Your task to perform on an android device: Search for seafood restaurants on Google Maps Image 0: 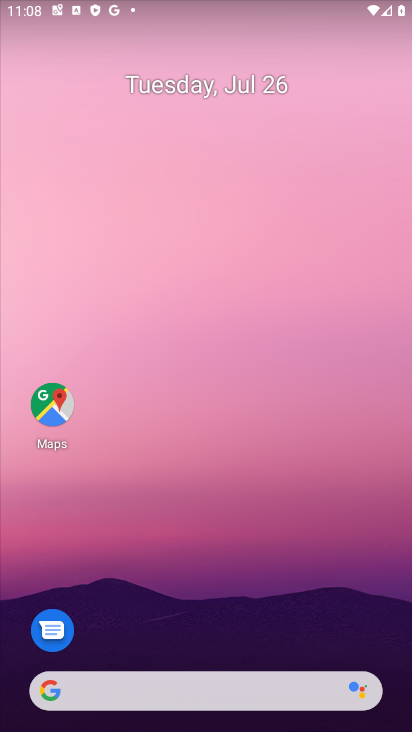
Step 0: drag from (142, 591) to (155, 206)
Your task to perform on an android device: Search for seafood restaurants on Google Maps Image 1: 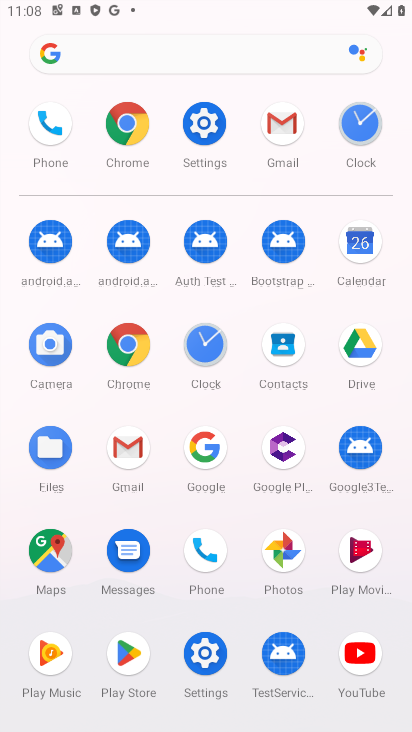
Step 1: click (47, 553)
Your task to perform on an android device: Search for seafood restaurants on Google Maps Image 2: 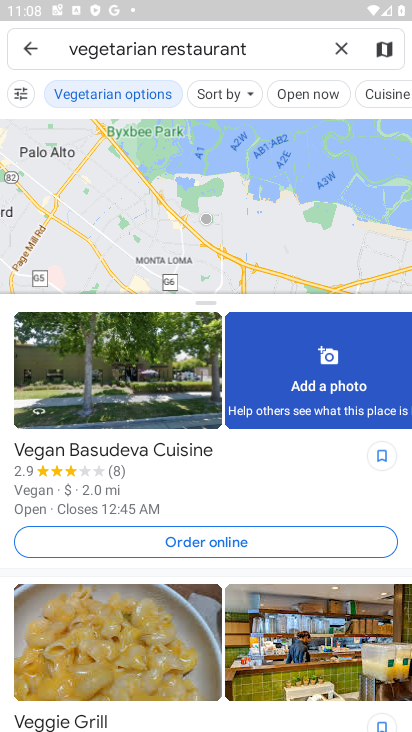
Step 2: click (336, 59)
Your task to perform on an android device: Search for seafood restaurants on Google Maps Image 3: 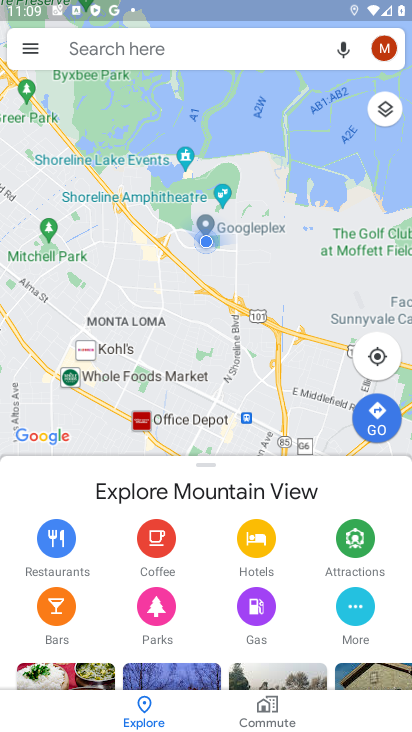
Step 3: click (231, 49)
Your task to perform on an android device: Search for seafood restaurants on Google Maps Image 4: 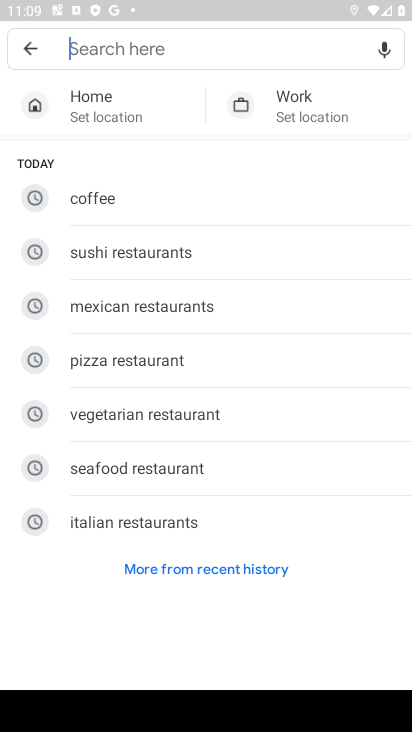
Step 4: type " seafood restaurant"
Your task to perform on an android device: Search for seafood restaurants on Google Maps Image 5: 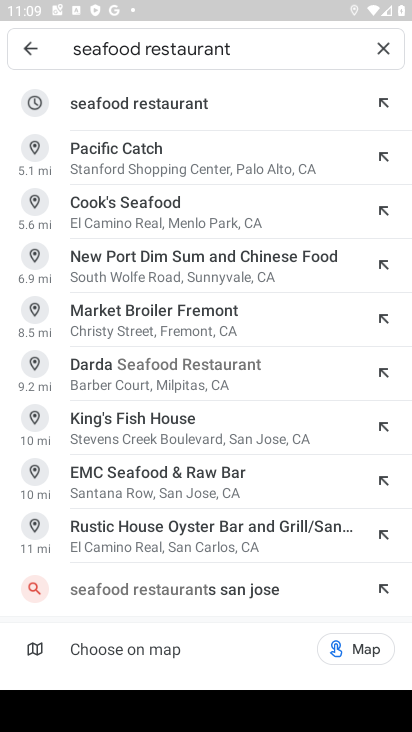
Step 5: click (159, 102)
Your task to perform on an android device: Search for seafood restaurants on Google Maps Image 6: 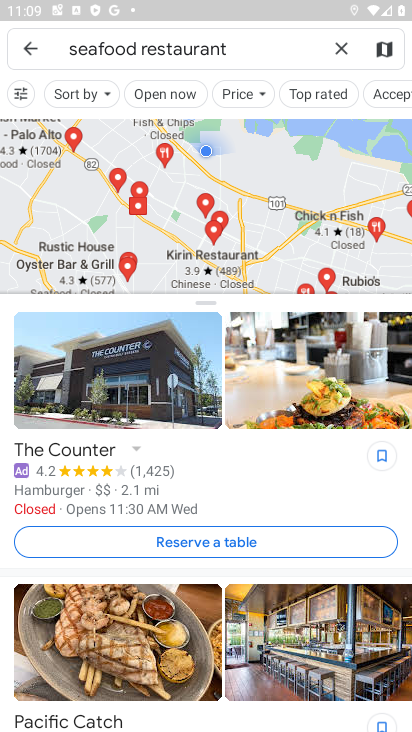
Step 6: task complete